Your task to perform on an android device: find which apps use the phone's location Image 0: 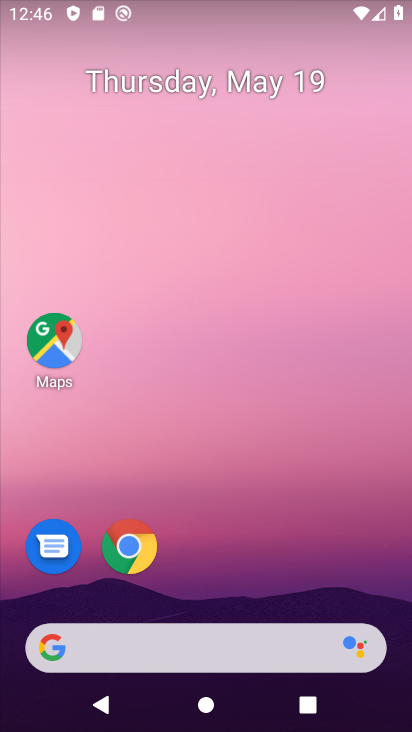
Step 0: drag from (225, 605) to (253, 8)
Your task to perform on an android device: find which apps use the phone's location Image 1: 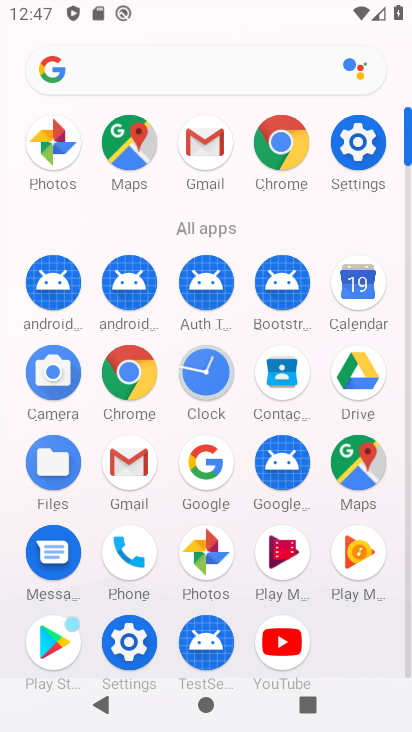
Step 1: click (364, 145)
Your task to perform on an android device: find which apps use the phone's location Image 2: 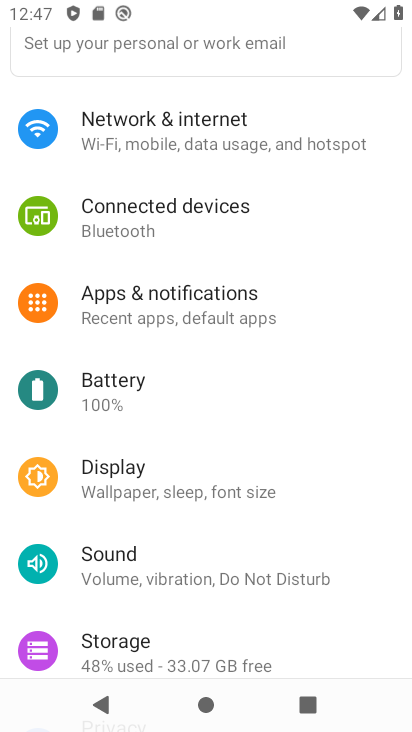
Step 2: drag from (194, 643) to (224, 261)
Your task to perform on an android device: find which apps use the phone's location Image 3: 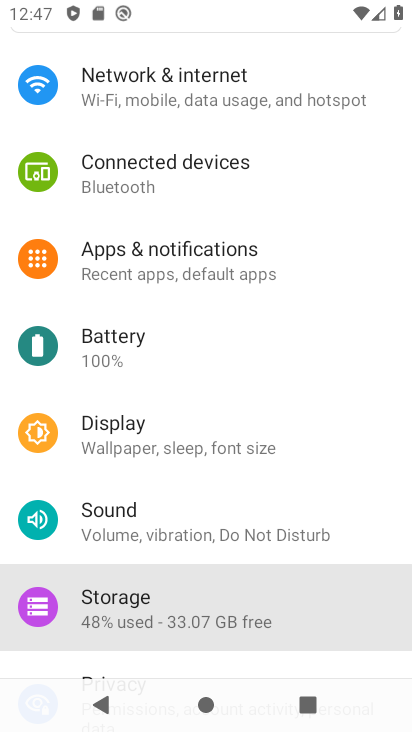
Step 3: click (229, 121)
Your task to perform on an android device: find which apps use the phone's location Image 4: 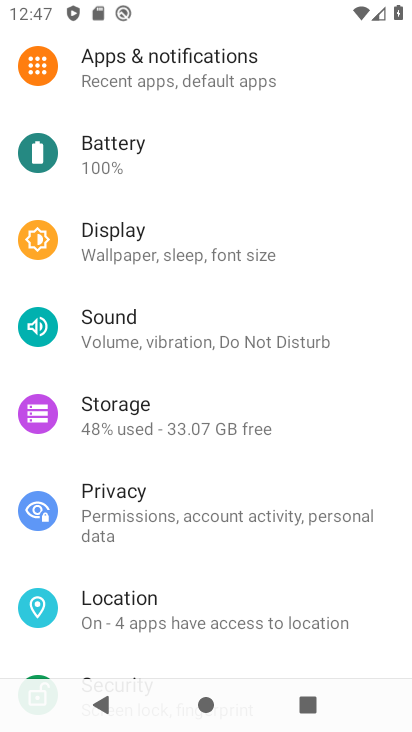
Step 4: click (178, 602)
Your task to perform on an android device: find which apps use the phone's location Image 5: 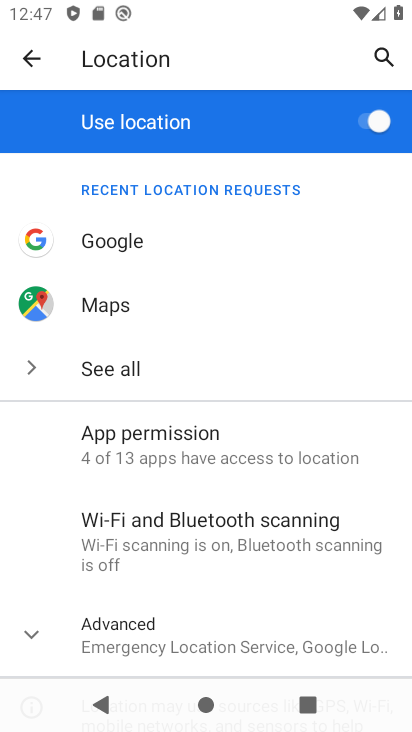
Step 5: click (150, 447)
Your task to perform on an android device: find which apps use the phone's location Image 6: 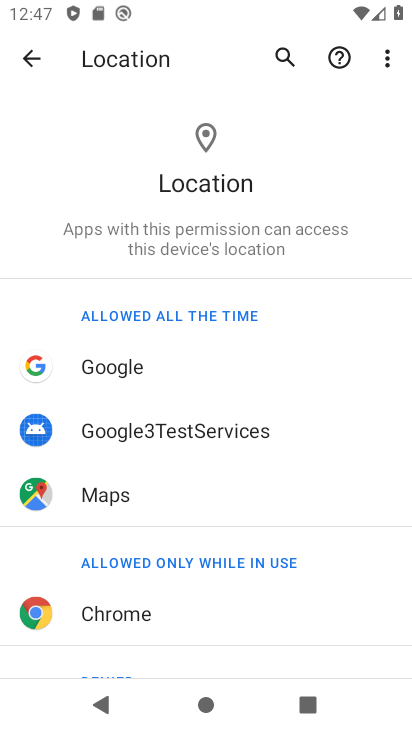
Step 6: task complete